Your task to perform on an android device: open app "Upside-Cash back on gas & food" (install if not already installed), go to login, and select forgot password Image 0: 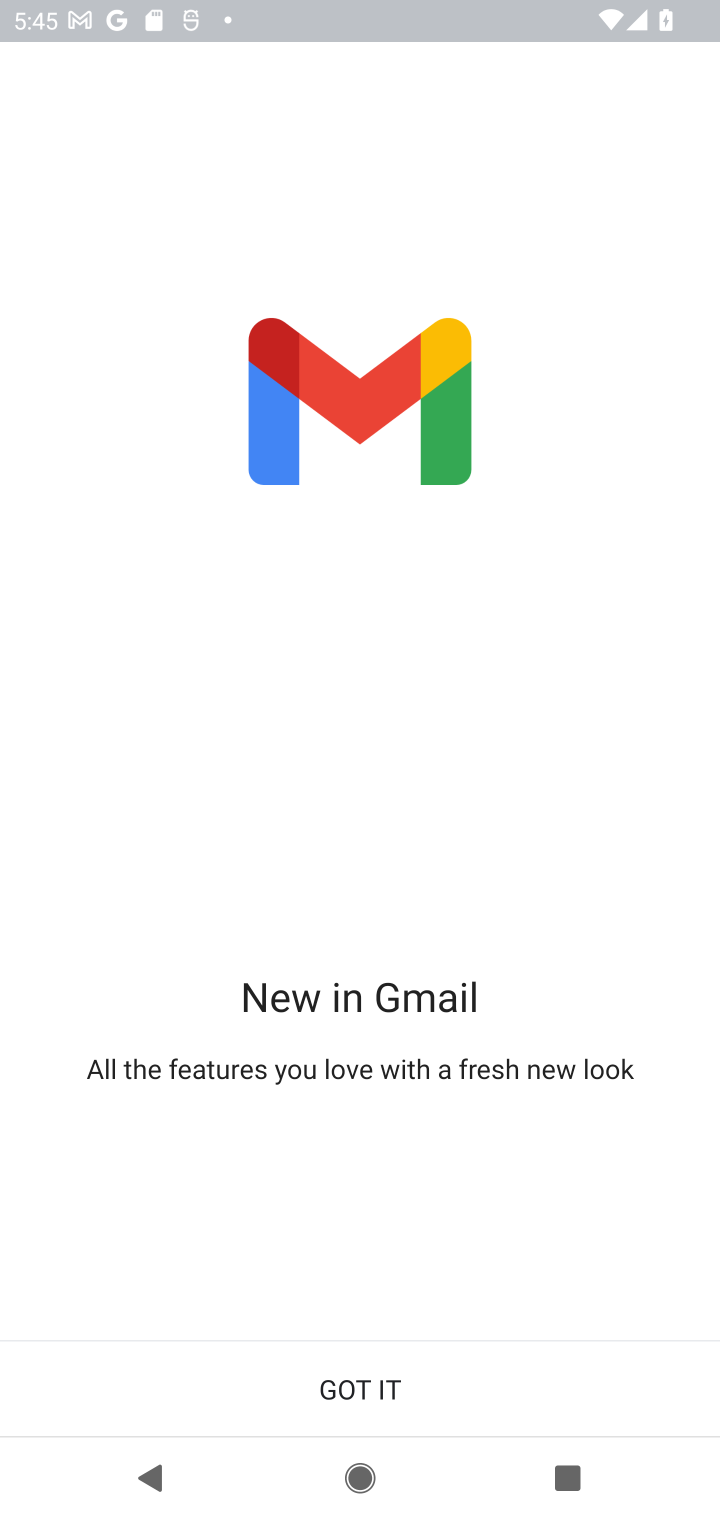
Step 0: press home button
Your task to perform on an android device: open app "Upside-Cash back on gas & food" (install if not already installed), go to login, and select forgot password Image 1: 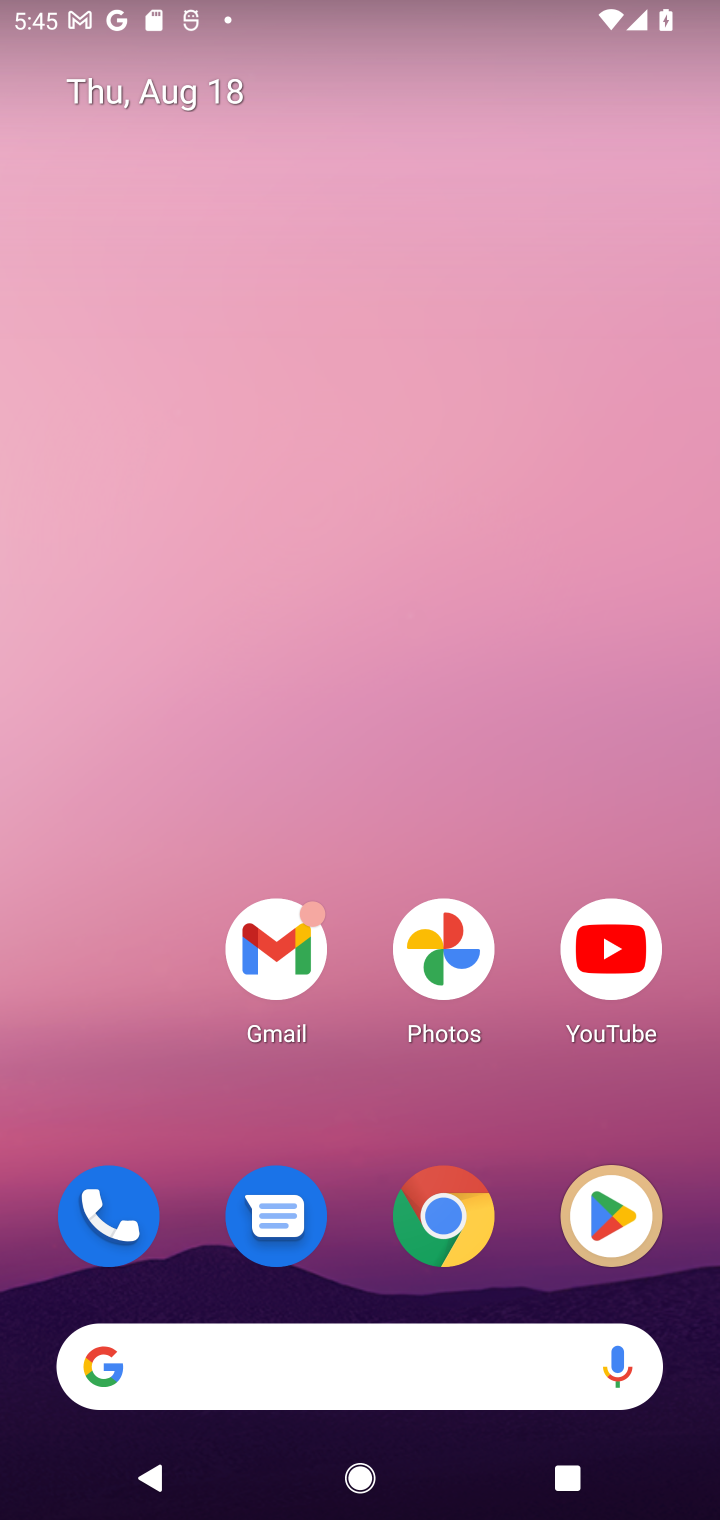
Step 1: click (615, 1216)
Your task to perform on an android device: open app "Upside-Cash back on gas & food" (install if not already installed), go to login, and select forgot password Image 2: 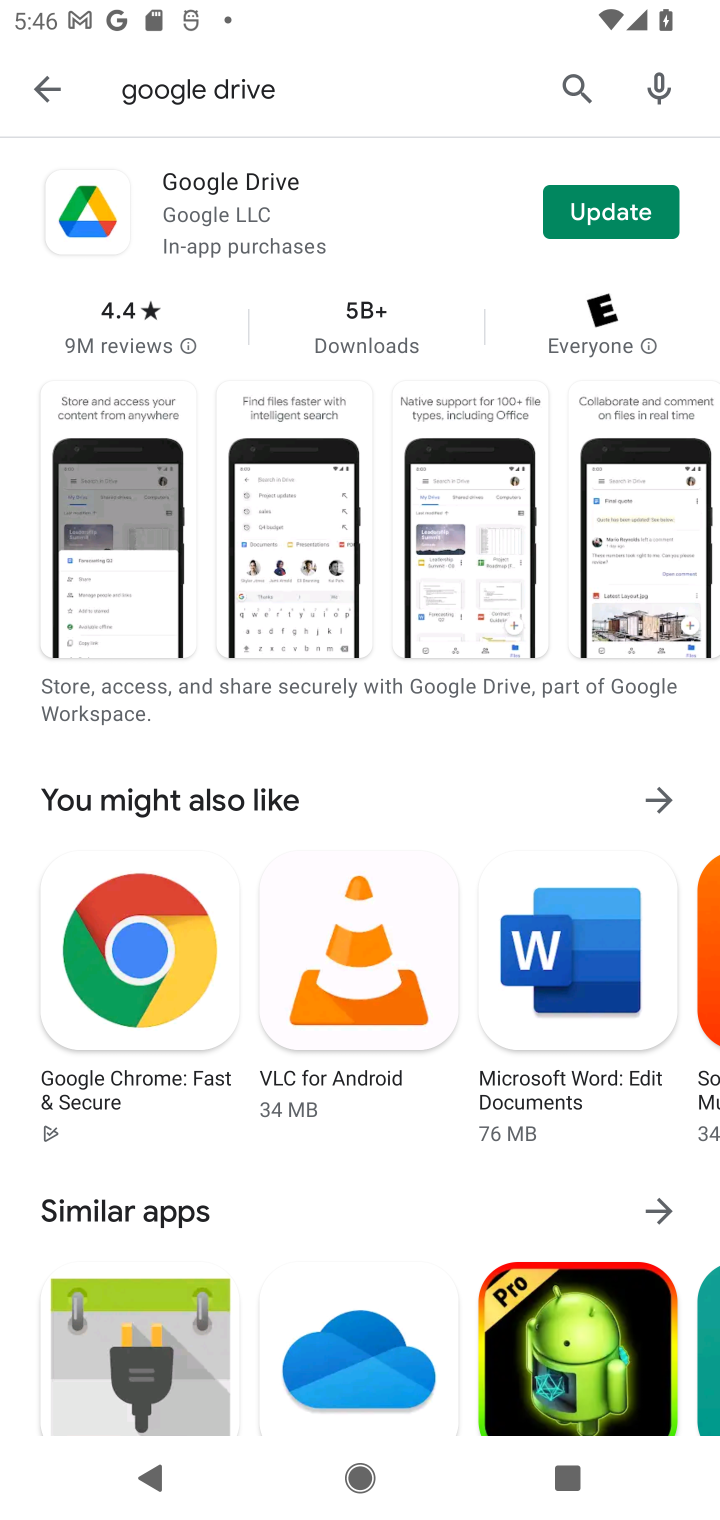
Step 2: click (567, 87)
Your task to perform on an android device: open app "Upside-Cash back on gas & food" (install if not already installed), go to login, and select forgot password Image 3: 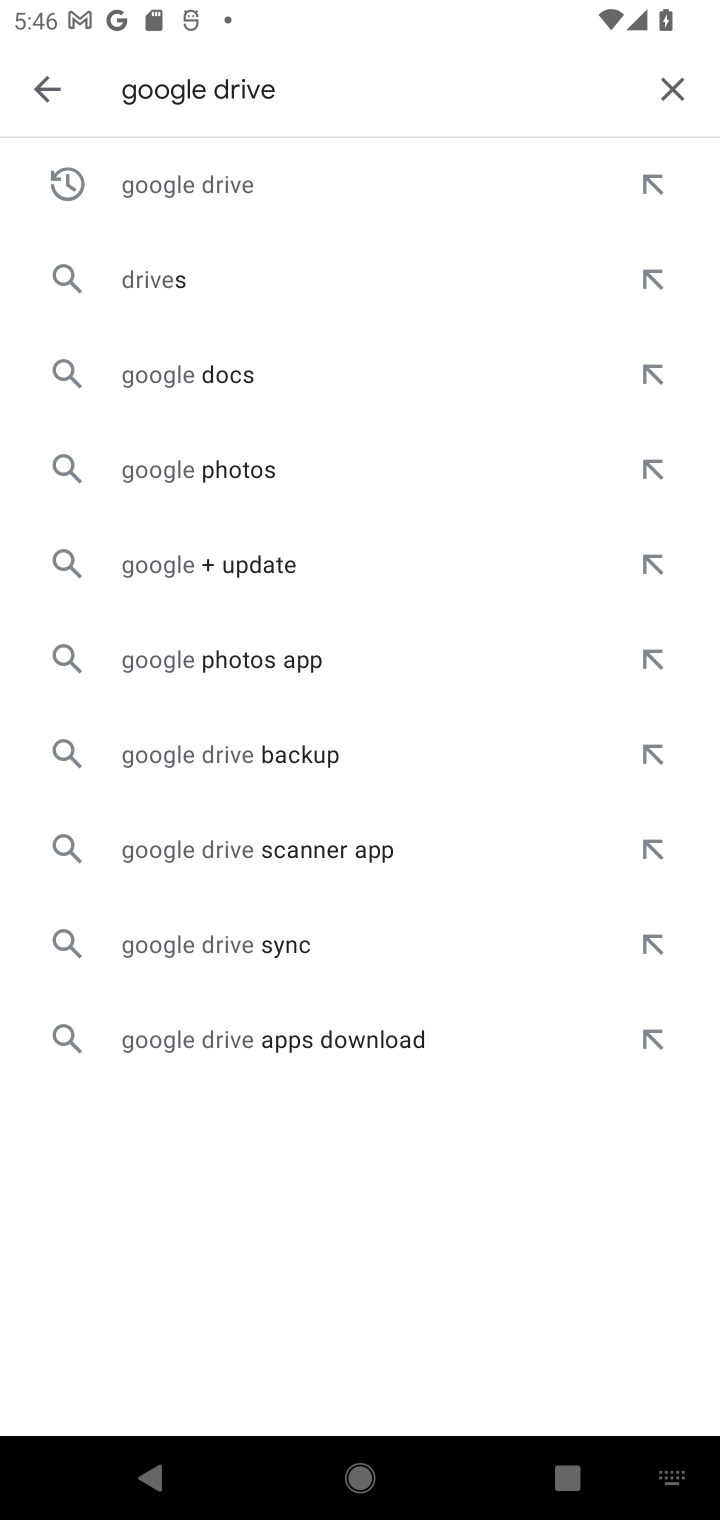
Step 3: click (666, 92)
Your task to perform on an android device: open app "Upside-Cash back on gas & food" (install if not already installed), go to login, and select forgot password Image 4: 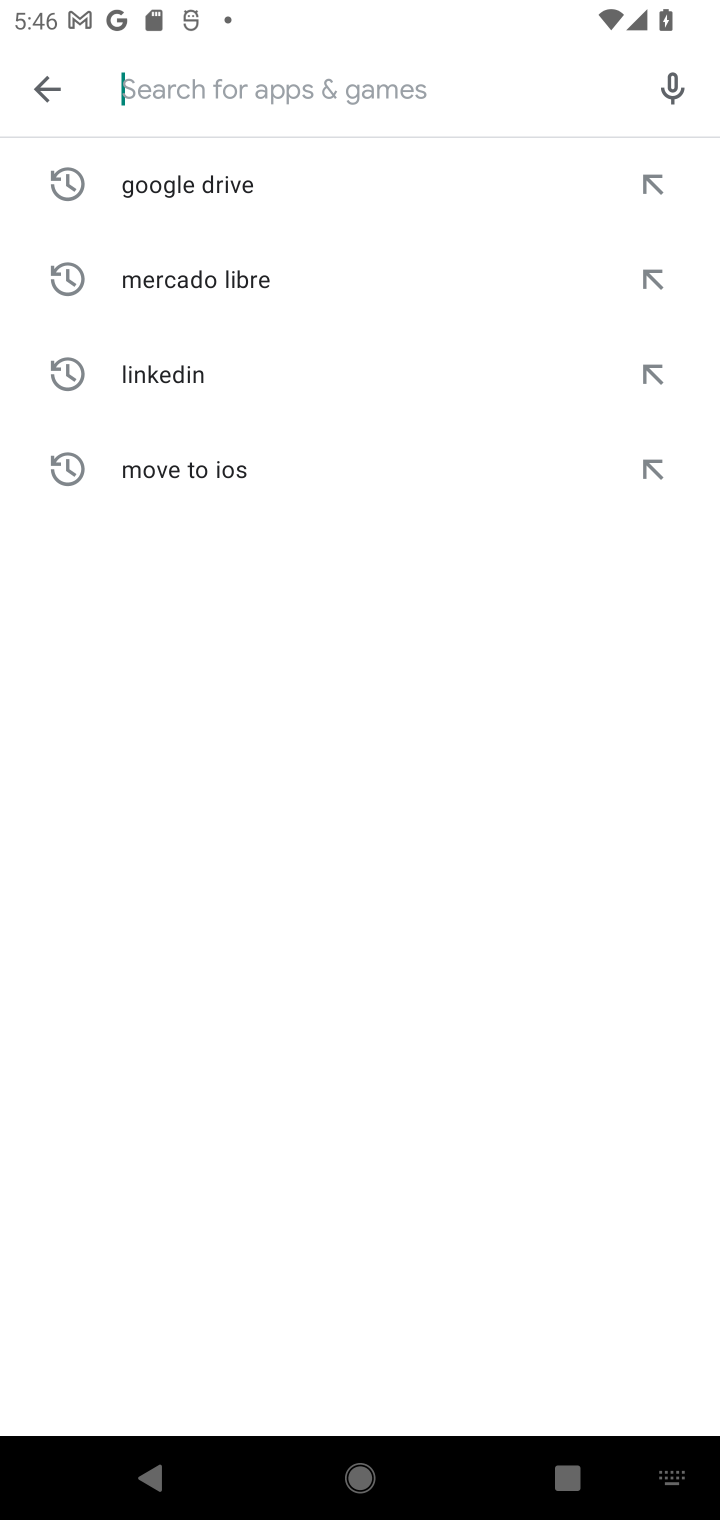
Step 4: type "Upside-Cash back on gas & food"
Your task to perform on an android device: open app "Upside-Cash back on gas & food" (install if not already installed), go to login, and select forgot password Image 5: 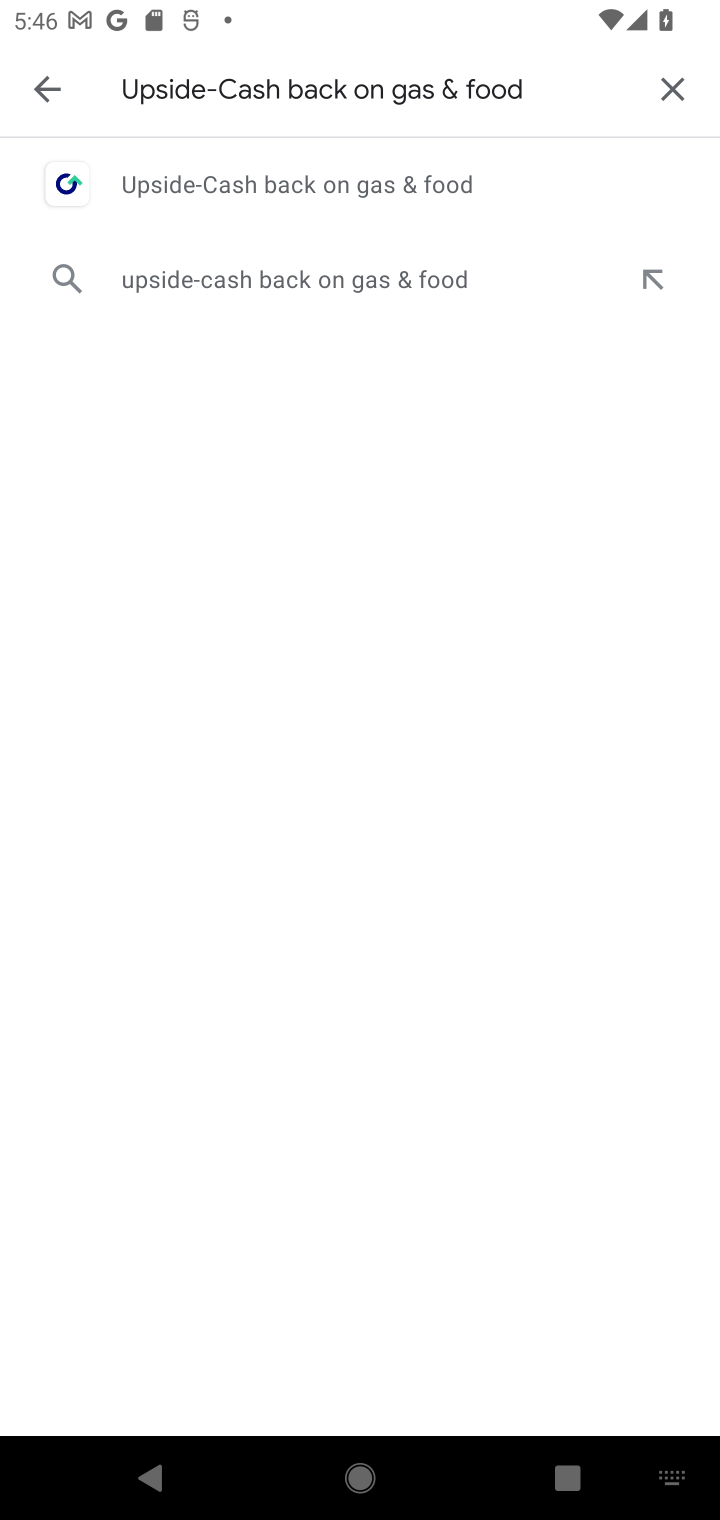
Step 5: click (308, 195)
Your task to perform on an android device: open app "Upside-Cash back on gas & food" (install if not already installed), go to login, and select forgot password Image 6: 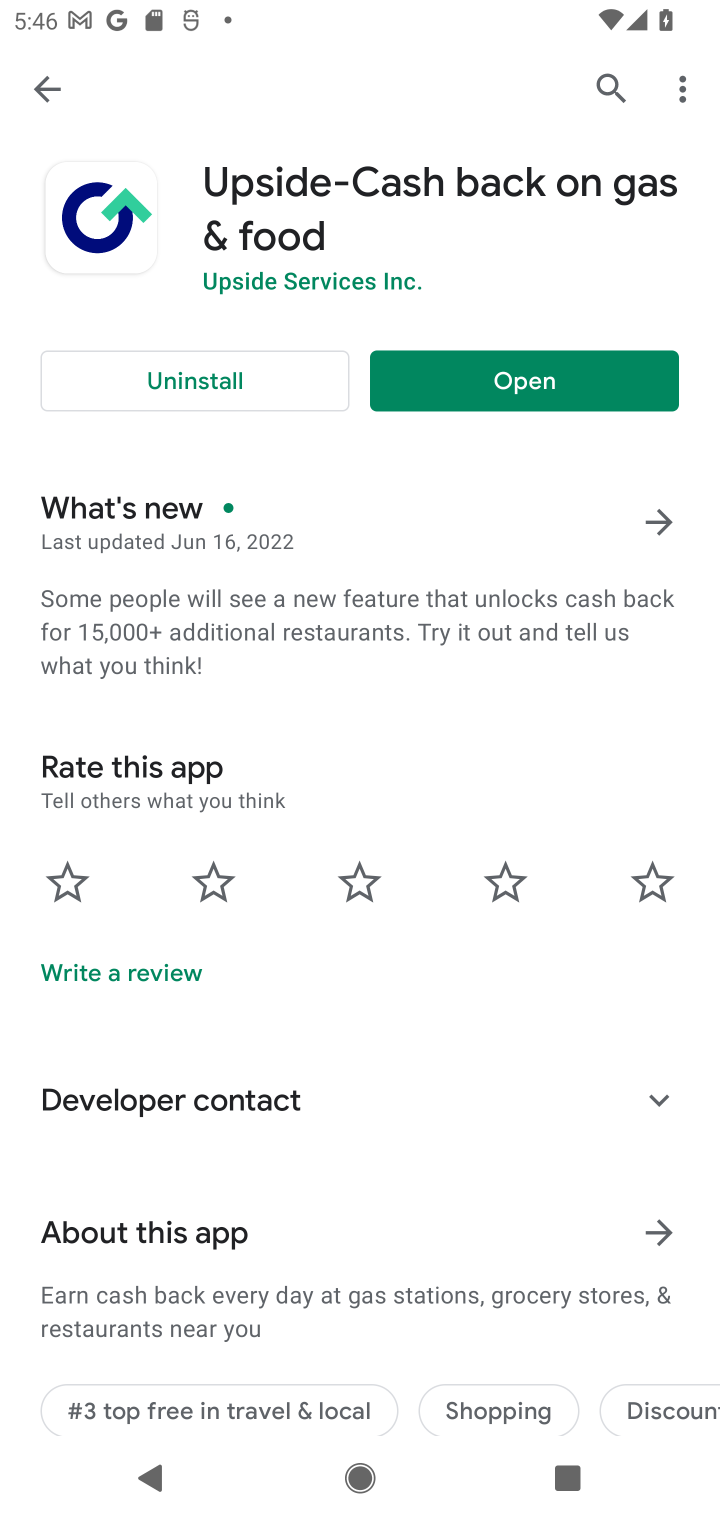
Step 6: click (539, 378)
Your task to perform on an android device: open app "Upside-Cash back on gas & food" (install if not already installed), go to login, and select forgot password Image 7: 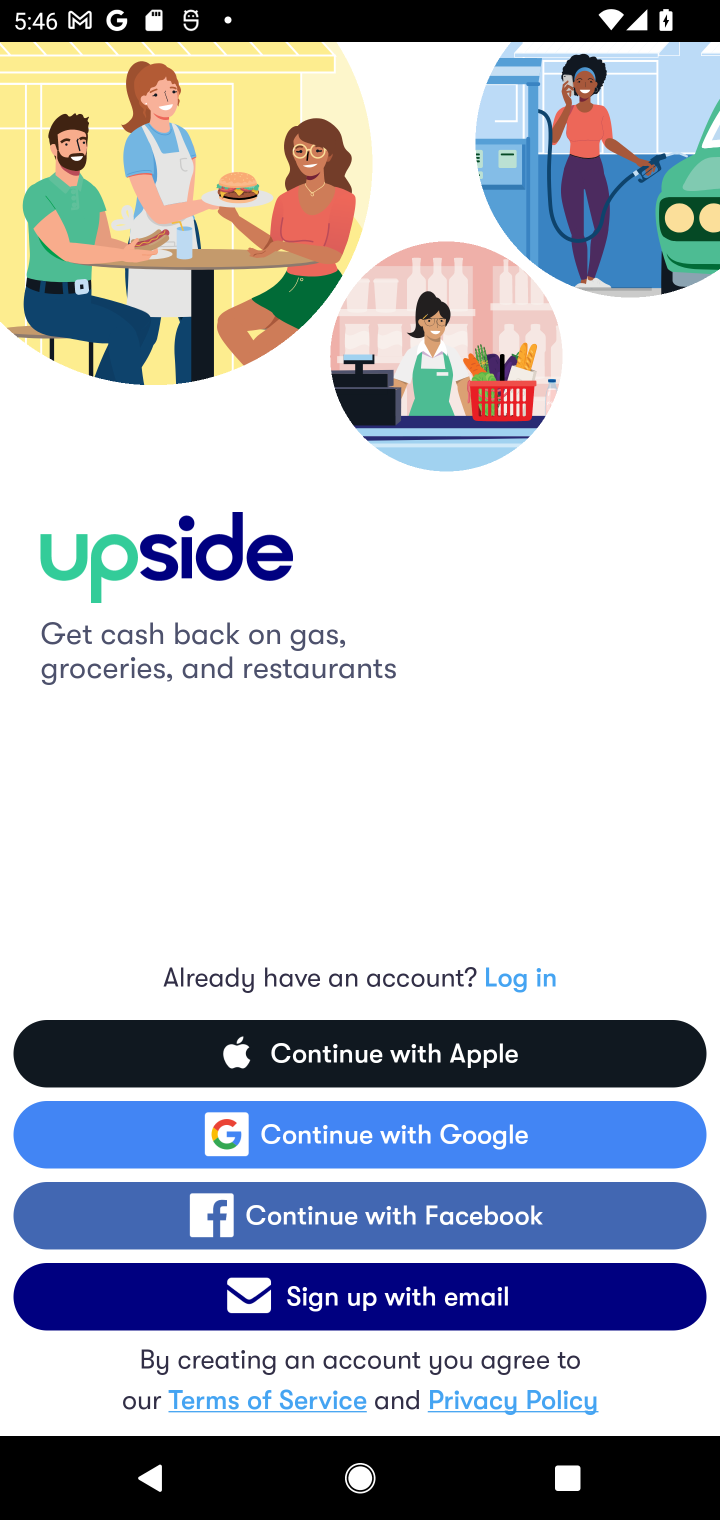
Step 7: click (372, 1301)
Your task to perform on an android device: open app "Upside-Cash back on gas & food" (install if not already installed), go to login, and select forgot password Image 8: 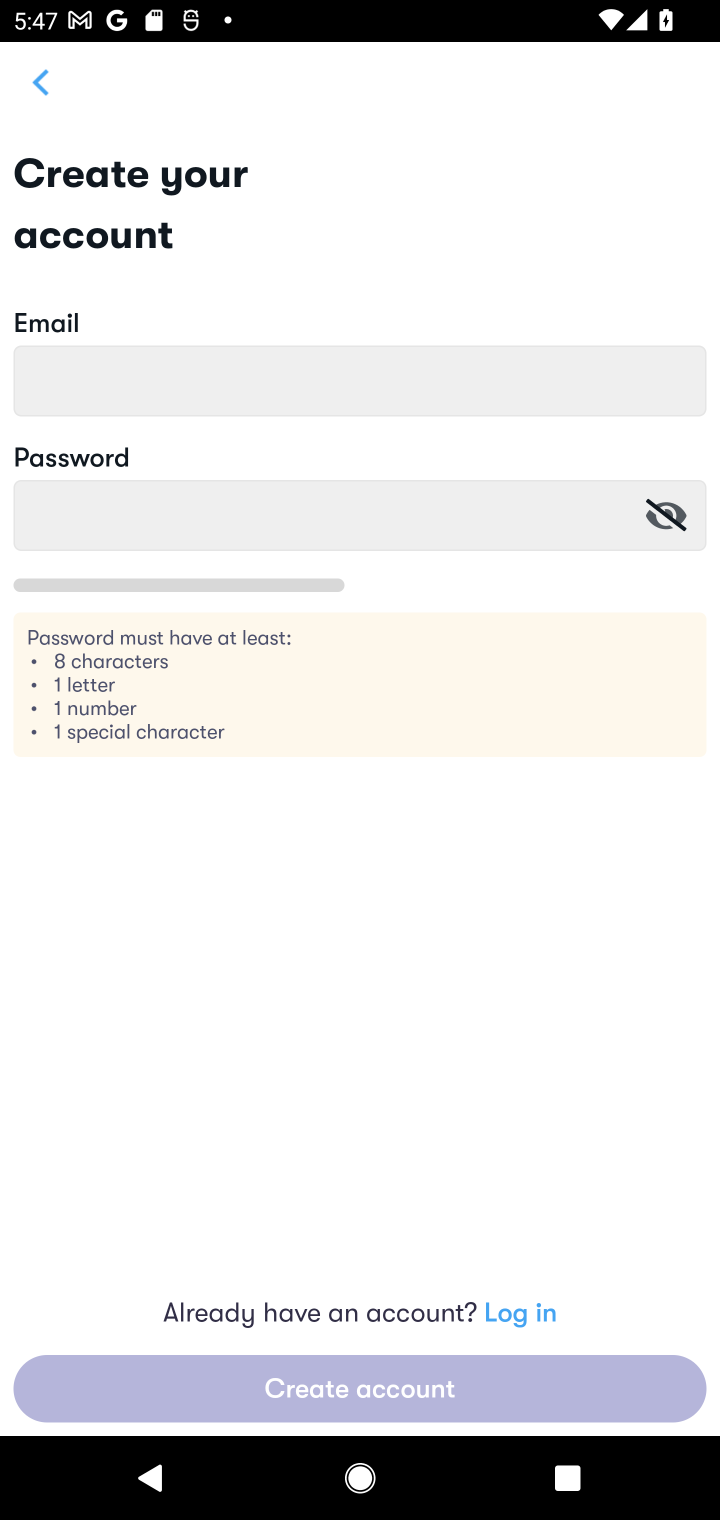
Step 8: click (503, 1314)
Your task to perform on an android device: open app "Upside-Cash back on gas & food" (install if not already installed), go to login, and select forgot password Image 9: 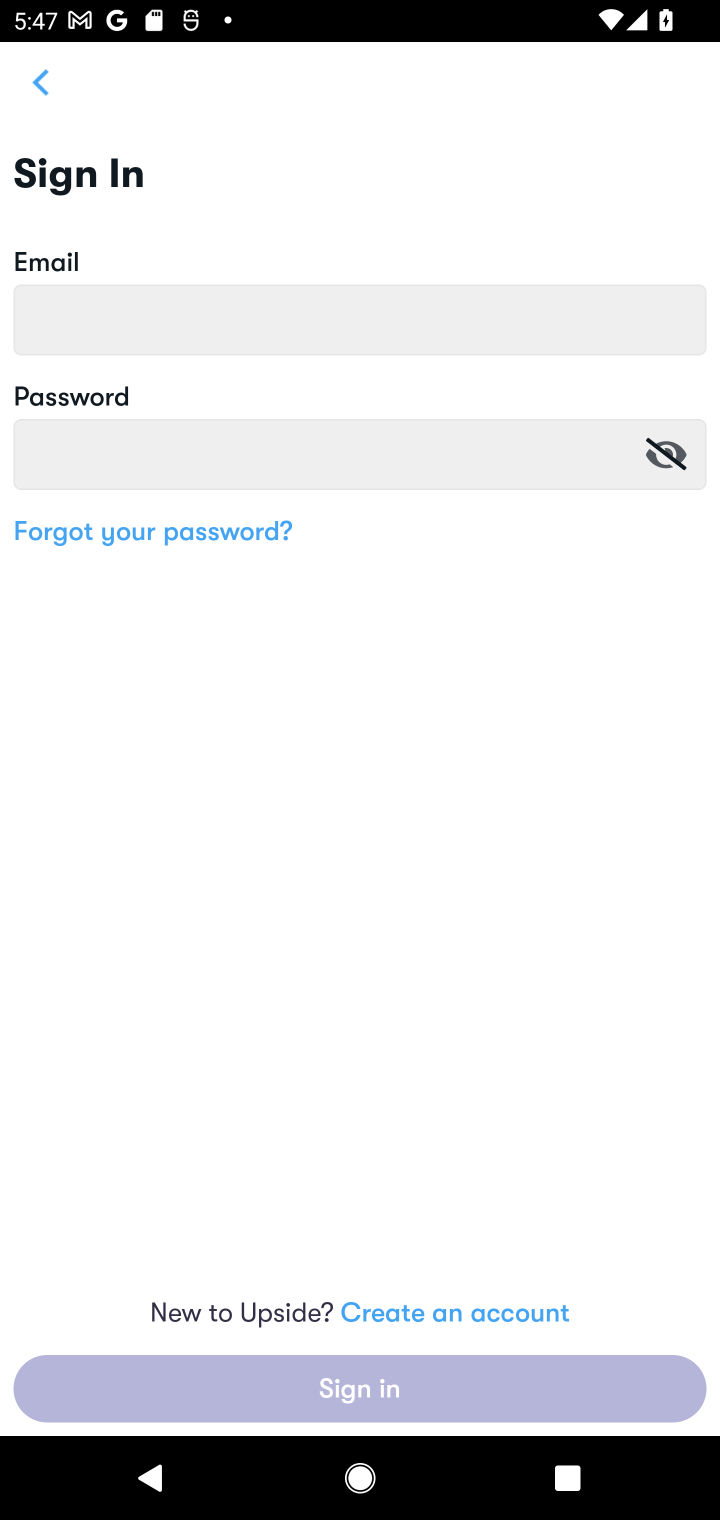
Step 9: click (148, 534)
Your task to perform on an android device: open app "Upside-Cash back on gas & food" (install if not already installed), go to login, and select forgot password Image 10: 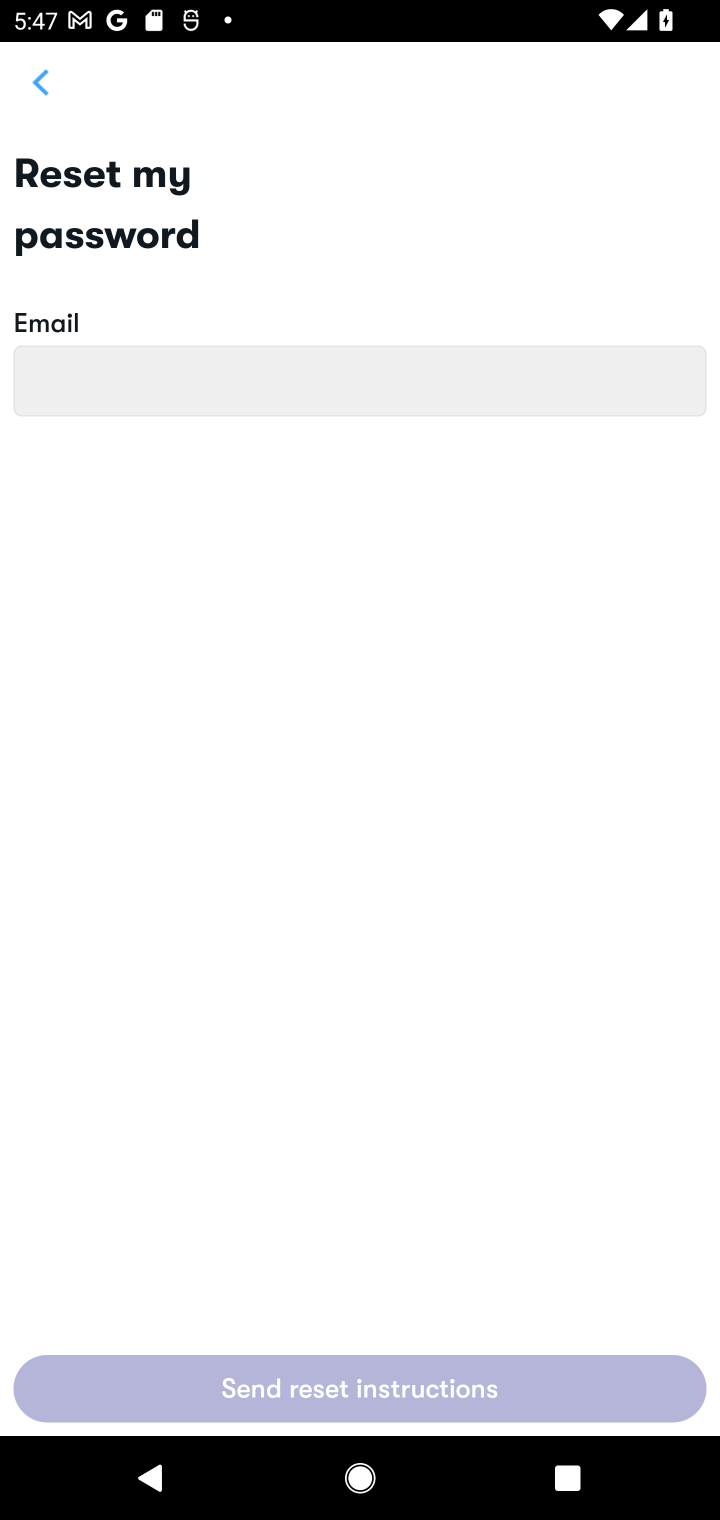
Step 10: task complete